Your task to perform on an android device: set the stopwatch Image 0: 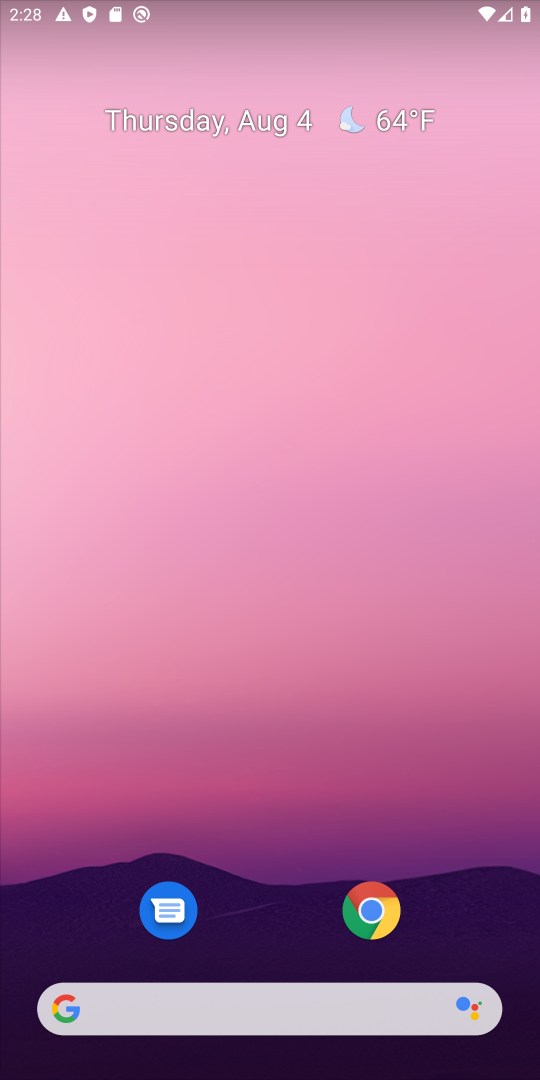
Step 0: drag from (305, 862) to (294, 82)
Your task to perform on an android device: set the stopwatch Image 1: 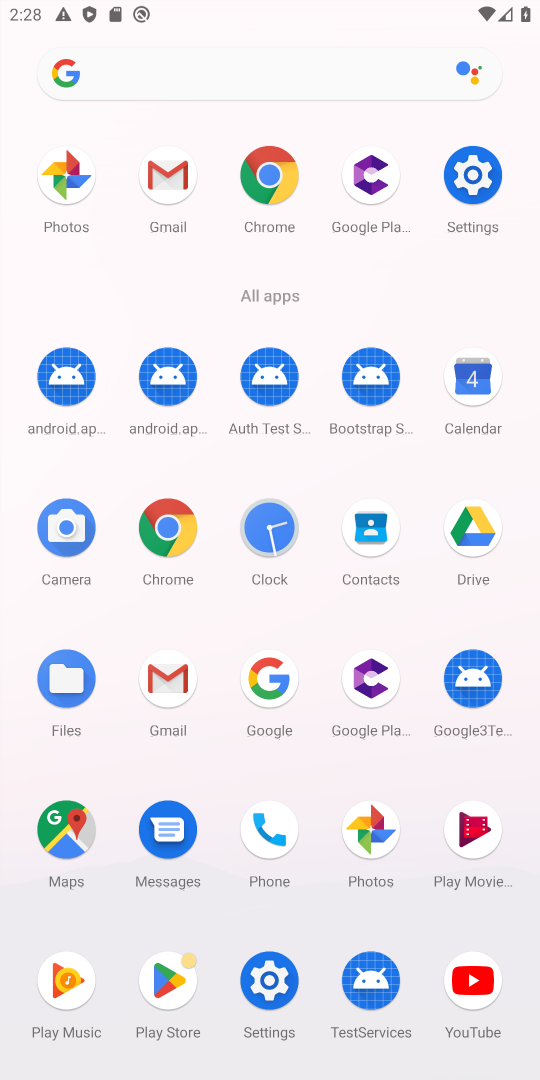
Step 1: click (274, 518)
Your task to perform on an android device: set the stopwatch Image 2: 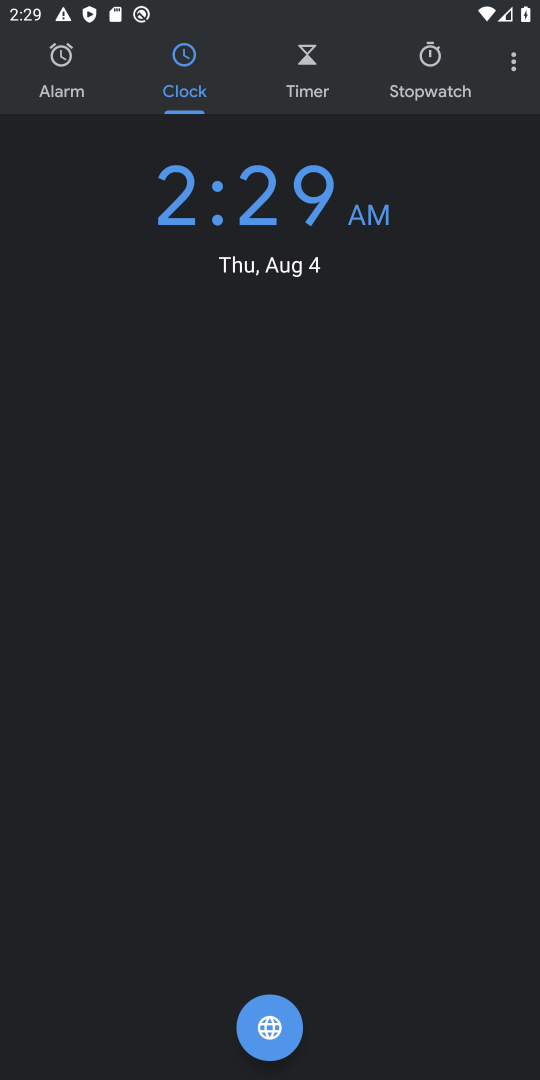
Step 2: click (416, 68)
Your task to perform on an android device: set the stopwatch Image 3: 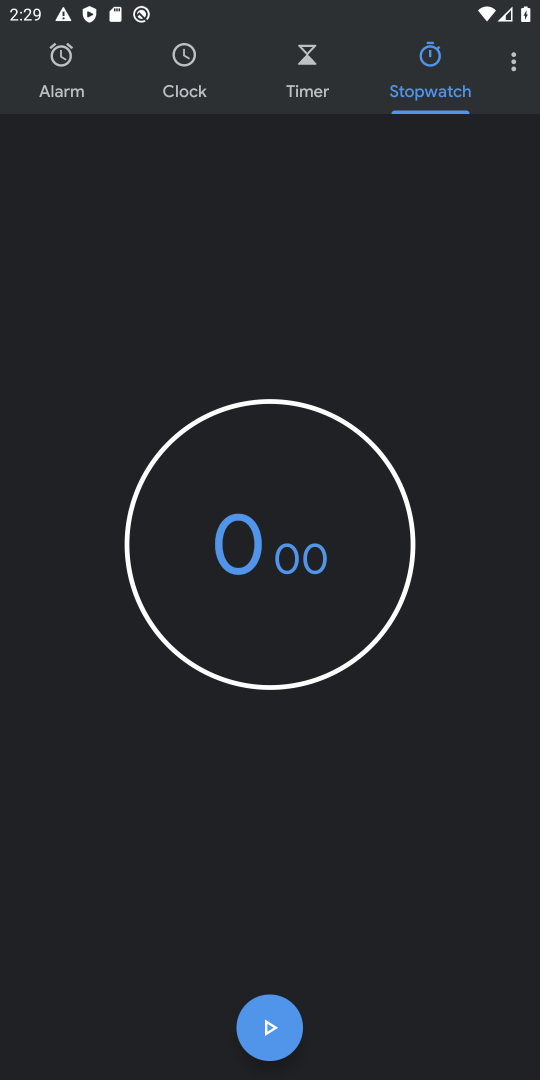
Step 3: click (274, 1011)
Your task to perform on an android device: set the stopwatch Image 4: 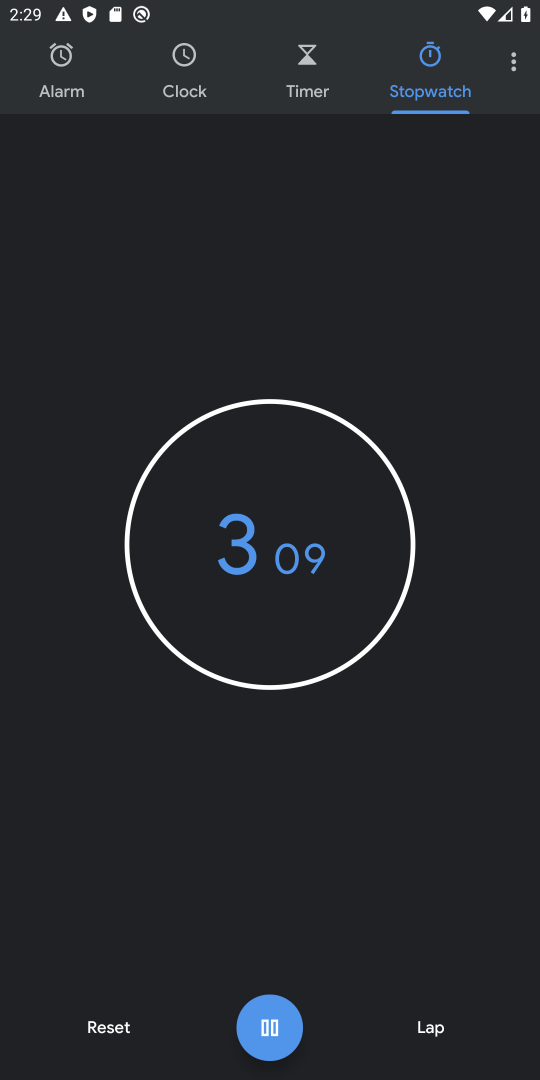
Step 4: task complete